Your task to perform on an android device: open wifi settings Image 0: 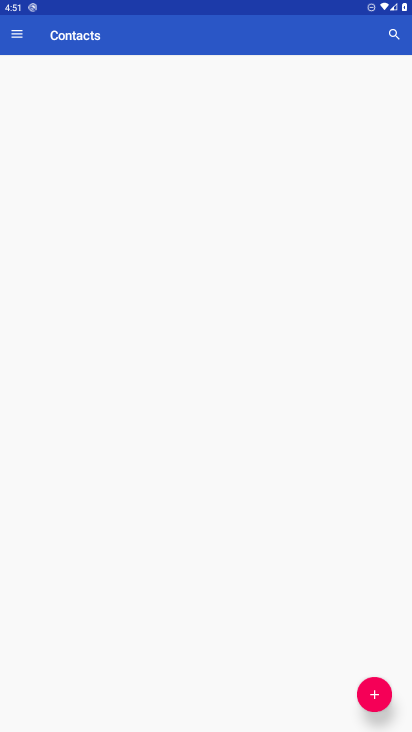
Step 0: drag from (216, 654) to (241, 22)
Your task to perform on an android device: open wifi settings Image 1: 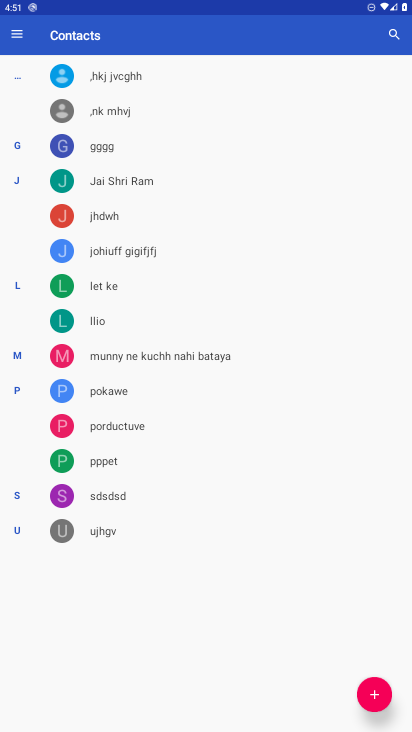
Step 1: press home button
Your task to perform on an android device: open wifi settings Image 2: 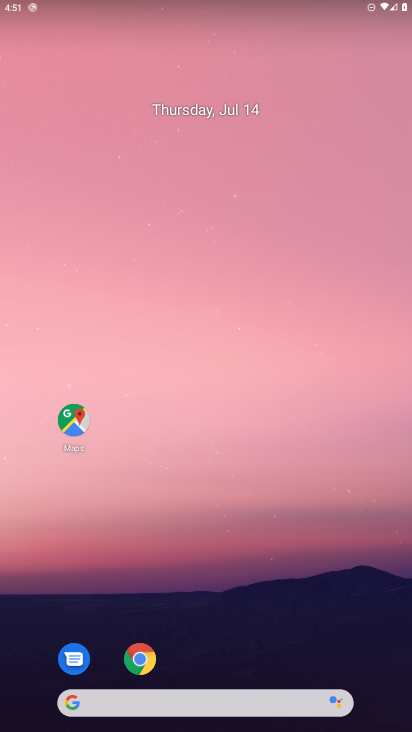
Step 2: drag from (205, 673) to (202, 60)
Your task to perform on an android device: open wifi settings Image 3: 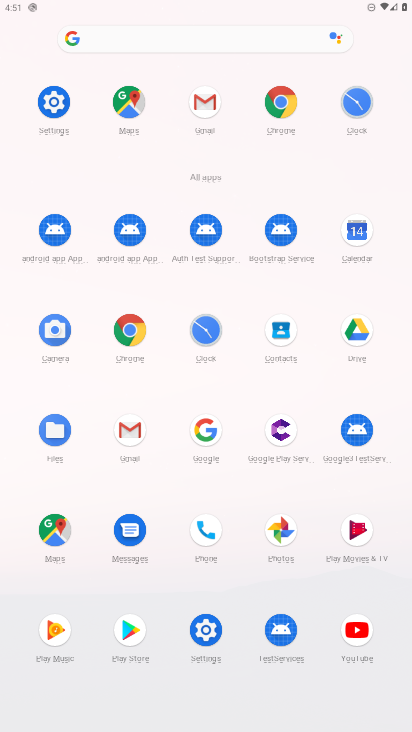
Step 3: click (47, 93)
Your task to perform on an android device: open wifi settings Image 4: 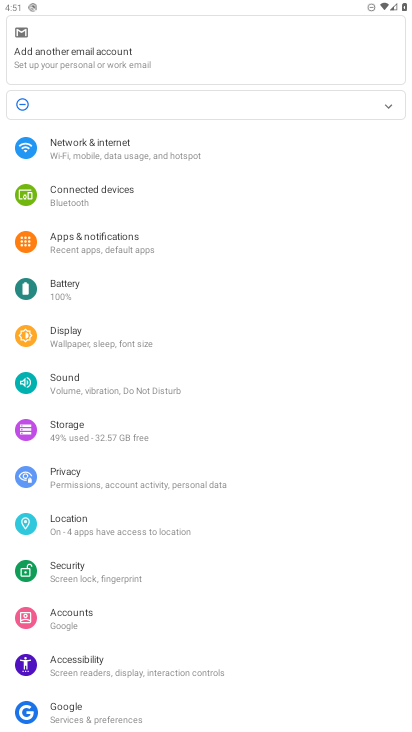
Step 4: click (112, 149)
Your task to perform on an android device: open wifi settings Image 5: 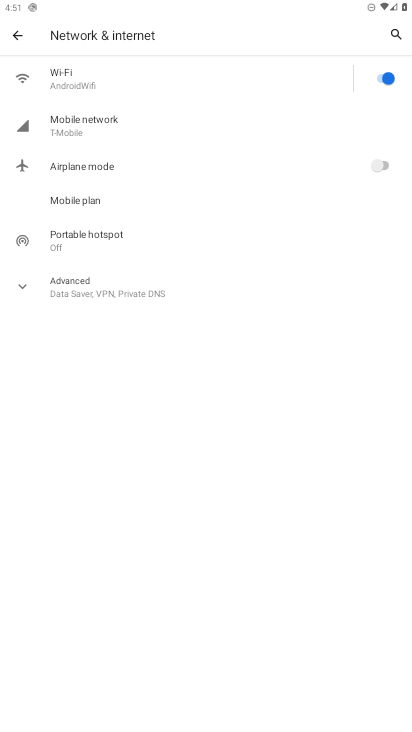
Step 5: click (94, 69)
Your task to perform on an android device: open wifi settings Image 6: 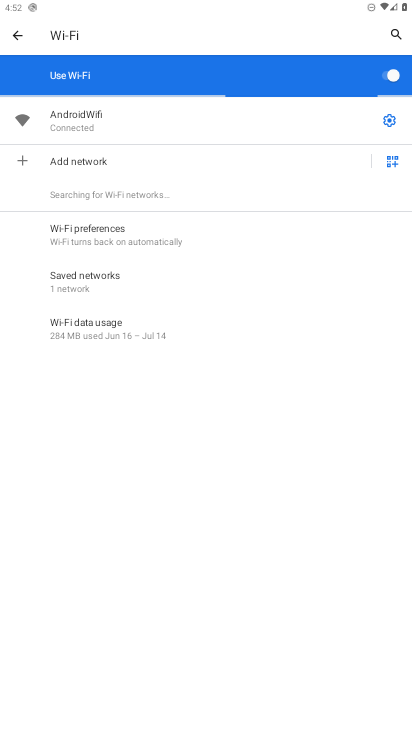
Step 6: task complete